Your task to perform on an android device: see sites visited before in the chrome app Image 0: 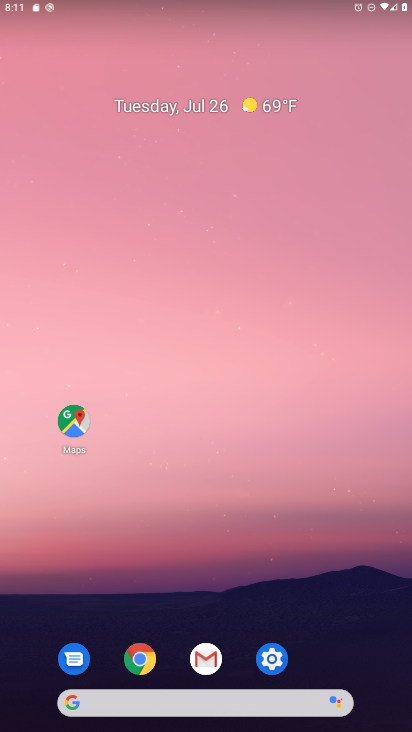
Step 0: click (138, 659)
Your task to perform on an android device: see sites visited before in the chrome app Image 1: 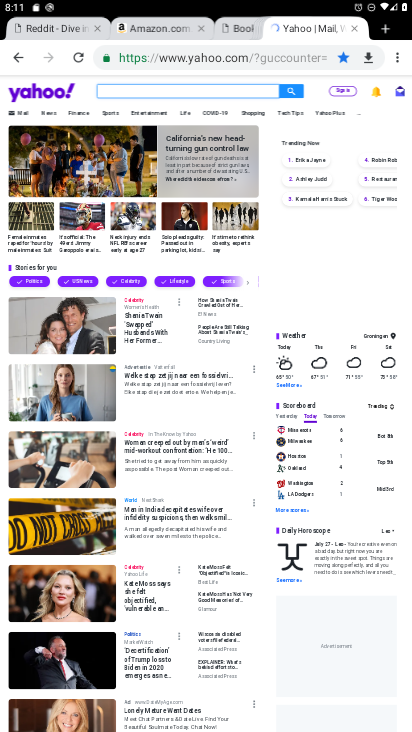
Step 1: click (396, 57)
Your task to perform on an android device: see sites visited before in the chrome app Image 2: 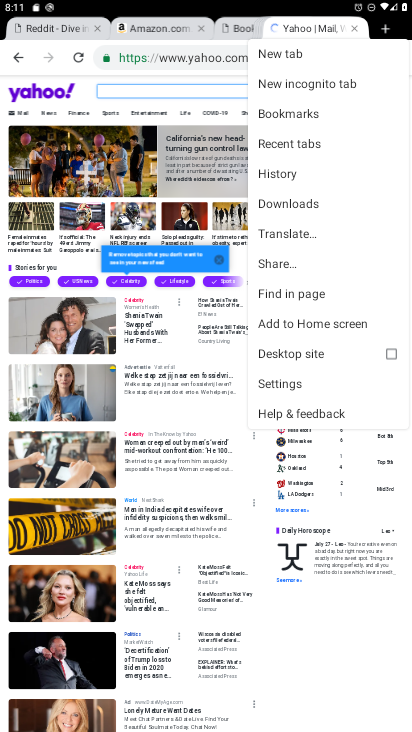
Step 2: click (274, 383)
Your task to perform on an android device: see sites visited before in the chrome app Image 3: 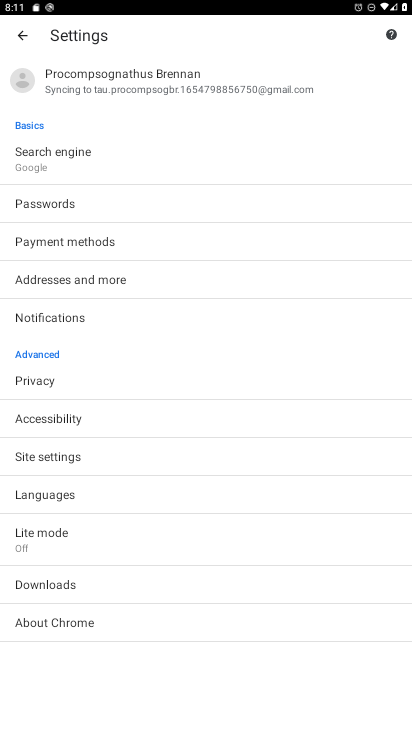
Step 3: click (62, 451)
Your task to perform on an android device: see sites visited before in the chrome app Image 4: 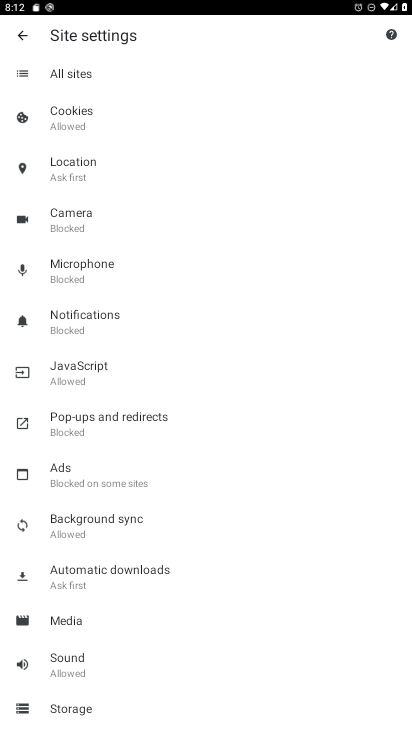
Step 4: click (96, 76)
Your task to perform on an android device: see sites visited before in the chrome app Image 5: 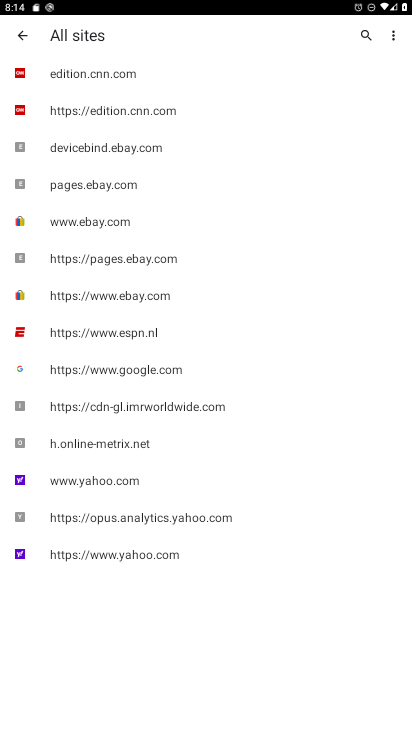
Step 5: task complete